Your task to perform on an android device: turn off location Image 0: 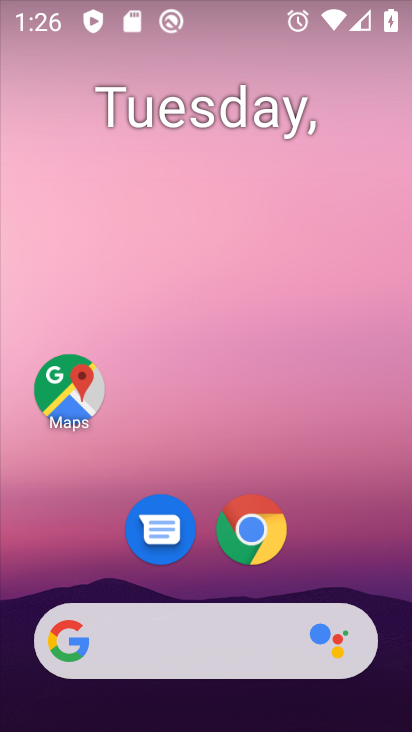
Step 0: drag from (380, 607) to (287, 61)
Your task to perform on an android device: turn off location Image 1: 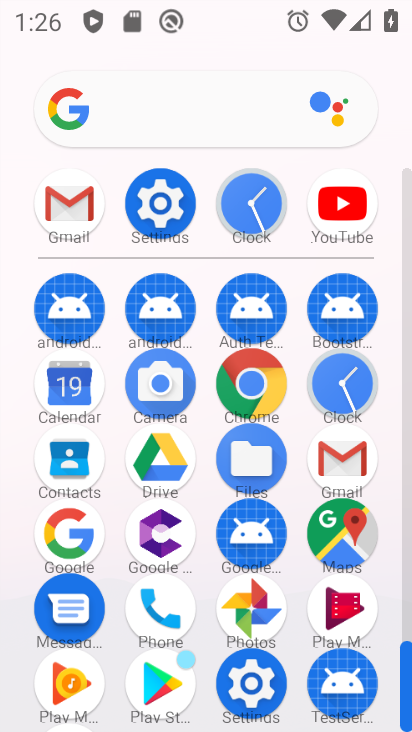
Step 1: click (163, 218)
Your task to perform on an android device: turn off location Image 2: 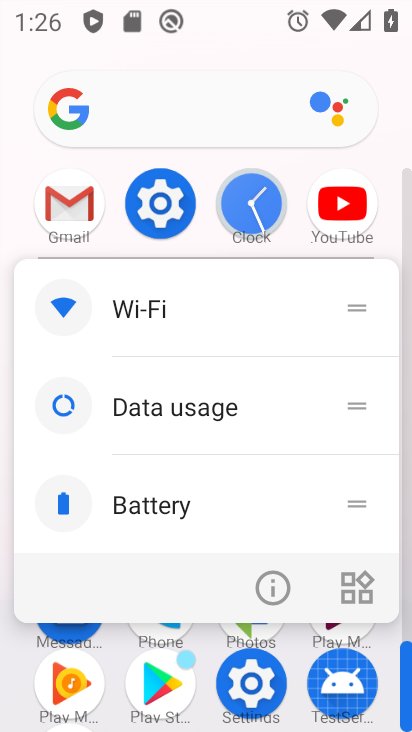
Step 2: click (163, 218)
Your task to perform on an android device: turn off location Image 3: 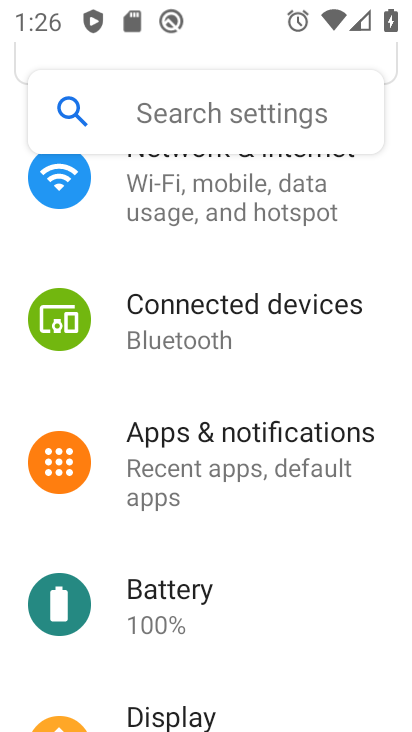
Step 3: drag from (141, 612) to (236, 216)
Your task to perform on an android device: turn off location Image 4: 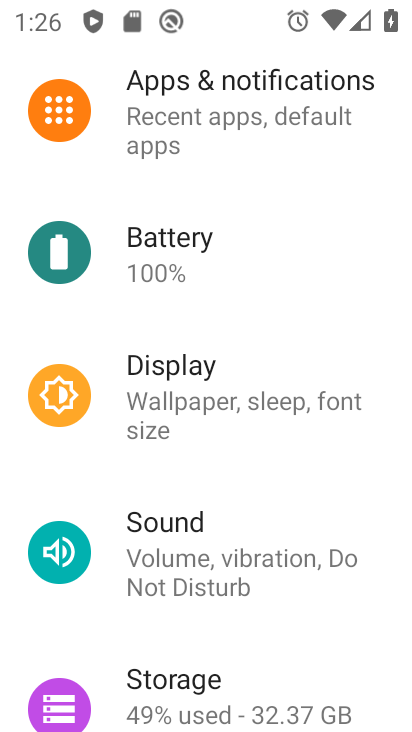
Step 4: drag from (169, 586) to (280, 125)
Your task to perform on an android device: turn off location Image 5: 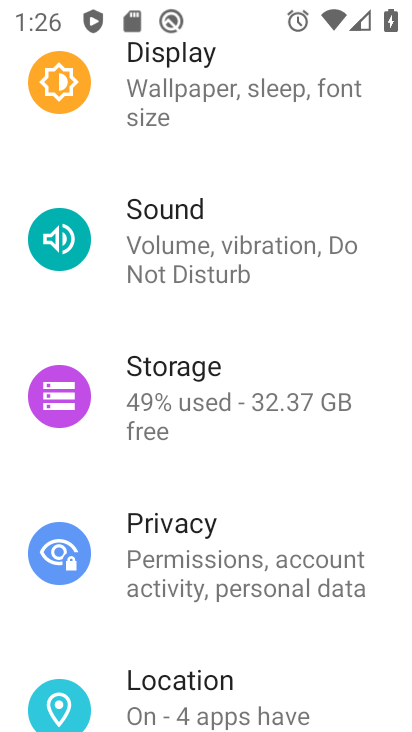
Step 5: click (212, 685)
Your task to perform on an android device: turn off location Image 6: 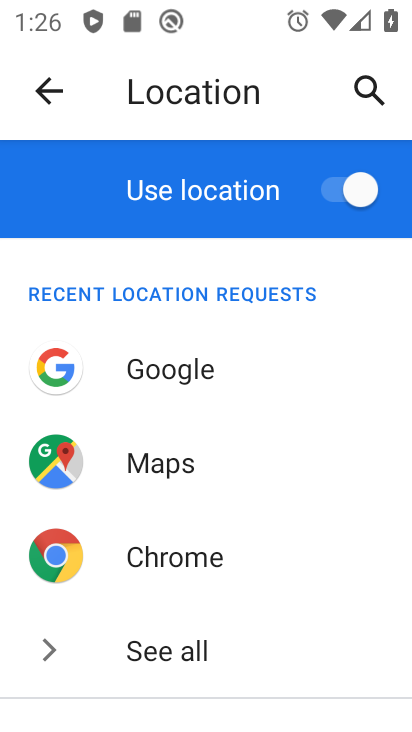
Step 6: click (250, 195)
Your task to perform on an android device: turn off location Image 7: 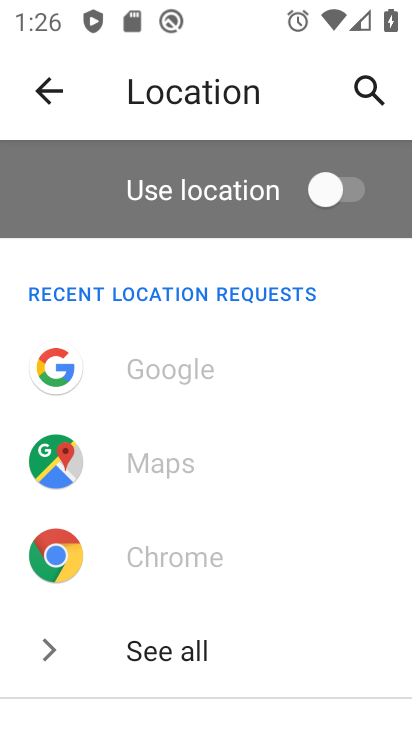
Step 7: task complete